Your task to perform on an android device: Go to Wikipedia Image 0: 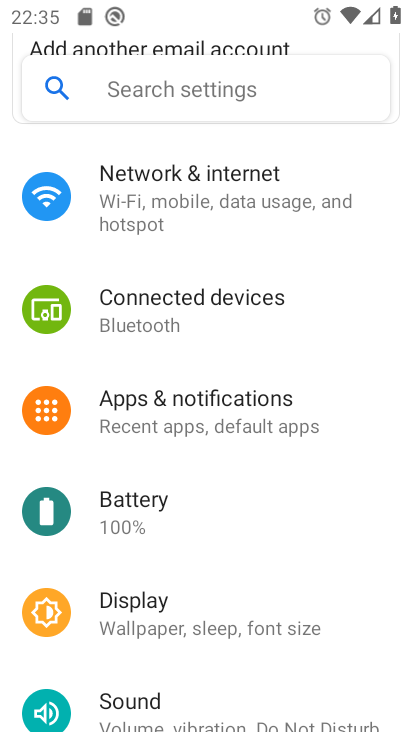
Step 0: press home button
Your task to perform on an android device: Go to Wikipedia Image 1: 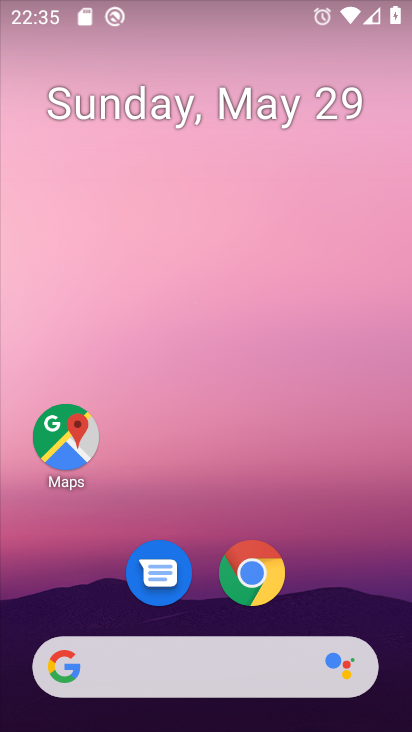
Step 1: click (260, 574)
Your task to perform on an android device: Go to Wikipedia Image 2: 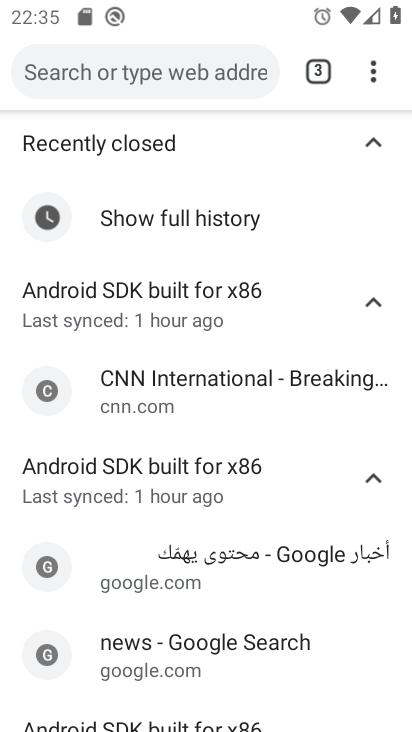
Step 2: click (369, 67)
Your task to perform on an android device: Go to Wikipedia Image 3: 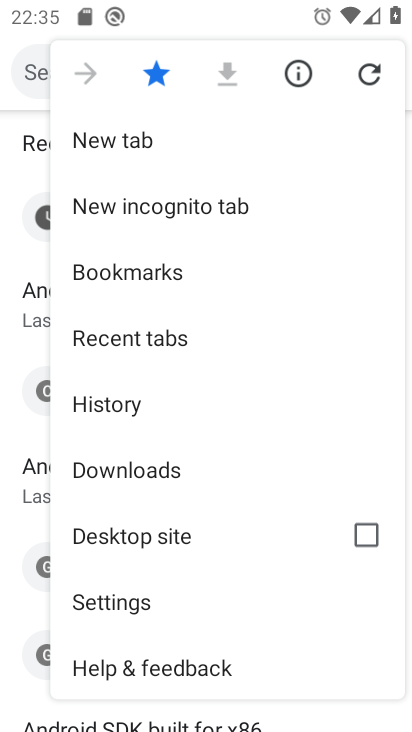
Step 3: click (288, 134)
Your task to perform on an android device: Go to Wikipedia Image 4: 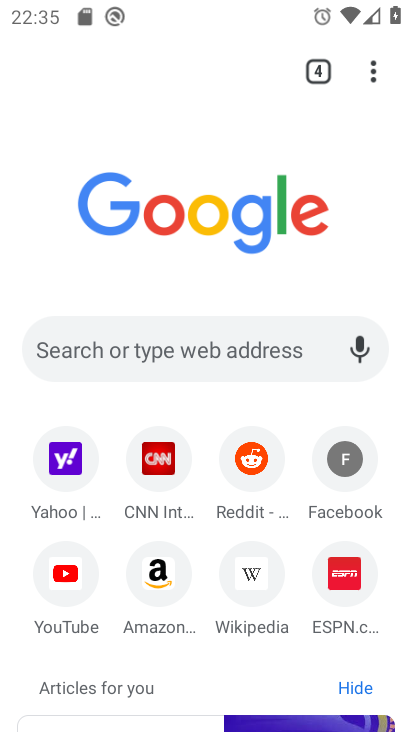
Step 4: click (246, 573)
Your task to perform on an android device: Go to Wikipedia Image 5: 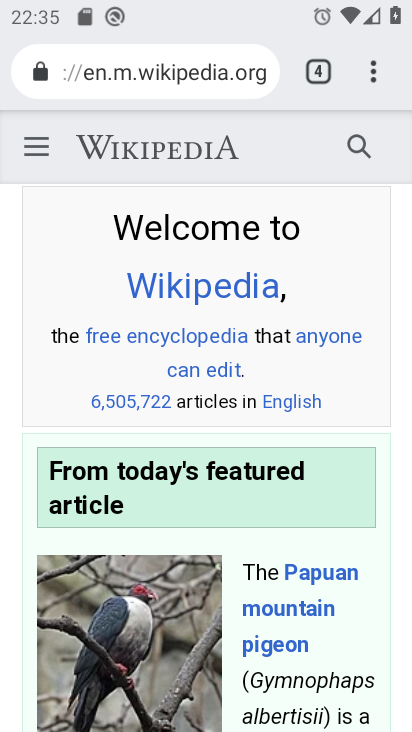
Step 5: task complete